Your task to perform on an android device: turn on priority inbox in the gmail app Image 0: 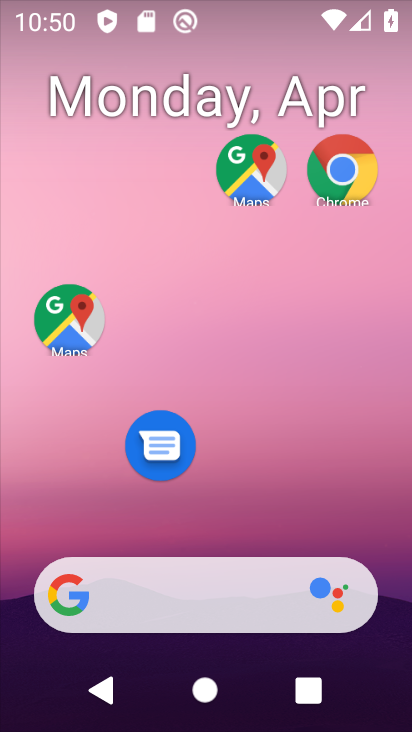
Step 0: drag from (311, 504) to (289, 38)
Your task to perform on an android device: turn on priority inbox in the gmail app Image 1: 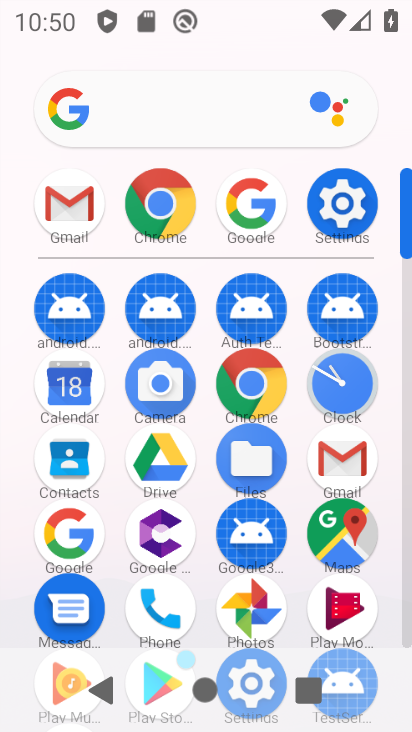
Step 1: click (361, 471)
Your task to perform on an android device: turn on priority inbox in the gmail app Image 2: 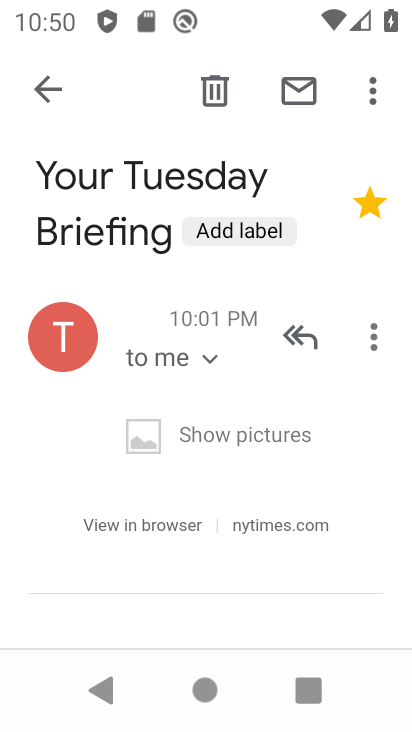
Step 2: click (39, 76)
Your task to perform on an android device: turn on priority inbox in the gmail app Image 3: 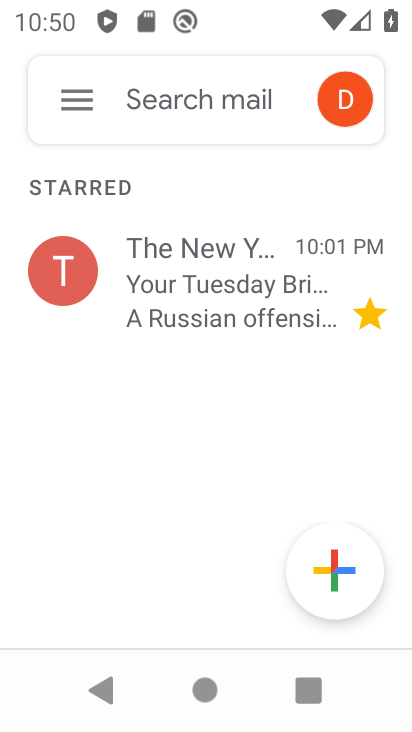
Step 3: click (77, 106)
Your task to perform on an android device: turn on priority inbox in the gmail app Image 4: 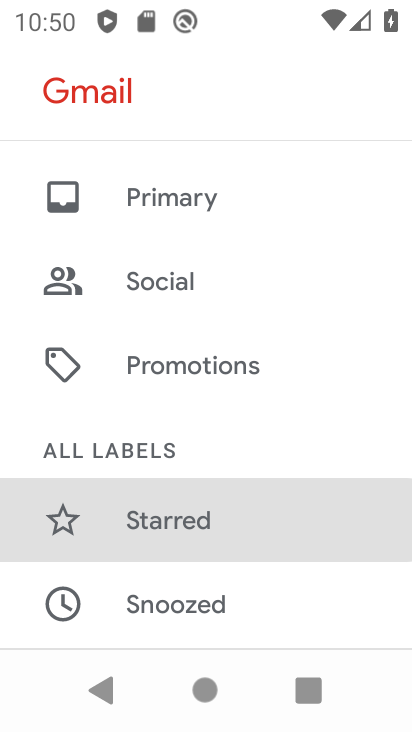
Step 4: drag from (150, 560) to (116, 2)
Your task to perform on an android device: turn on priority inbox in the gmail app Image 5: 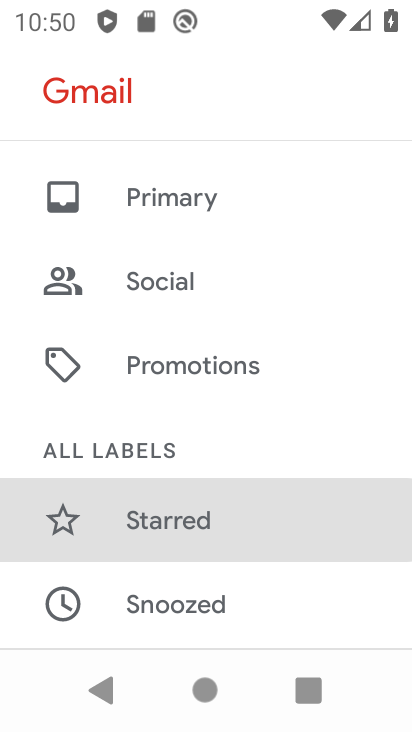
Step 5: drag from (234, 546) to (281, 52)
Your task to perform on an android device: turn on priority inbox in the gmail app Image 6: 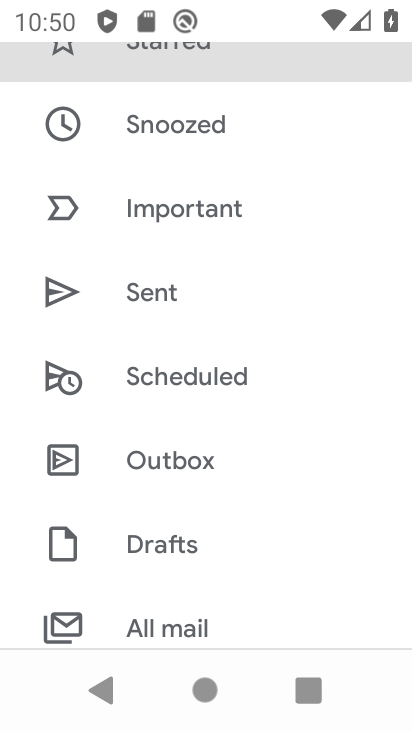
Step 6: drag from (223, 547) to (205, 33)
Your task to perform on an android device: turn on priority inbox in the gmail app Image 7: 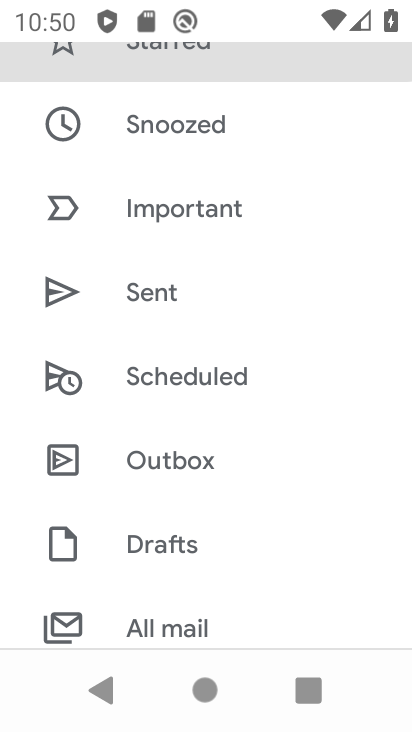
Step 7: drag from (275, 448) to (301, 10)
Your task to perform on an android device: turn on priority inbox in the gmail app Image 8: 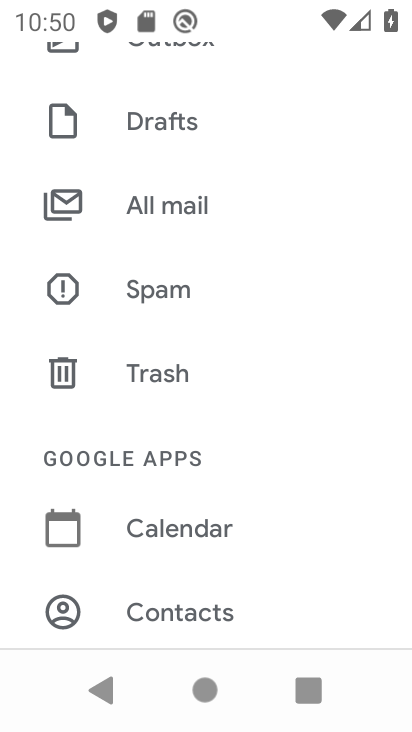
Step 8: drag from (245, 551) to (239, 40)
Your task to perform on an android device: turn on priority inbox in the gmail app Image 9: 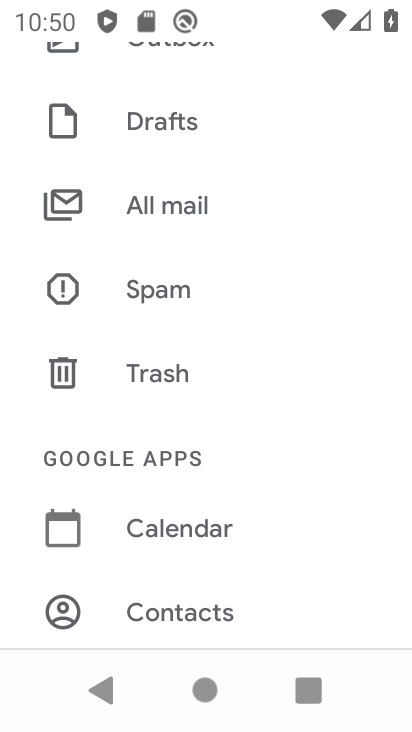
Step 9: drag from (272, 497) to (292, 35)
Your task to perform on an android device: turn on priority inbox in the gmail app Image 10: 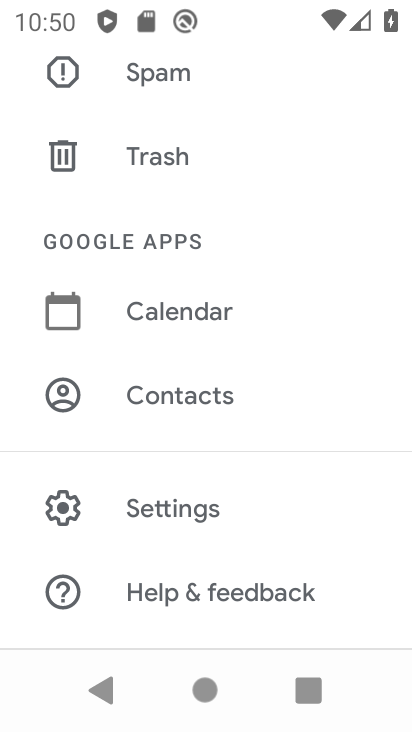
Step 10: click (229, 498)
Your task to perform on an android device: turn on priority inbox in the gmail app Image 11: 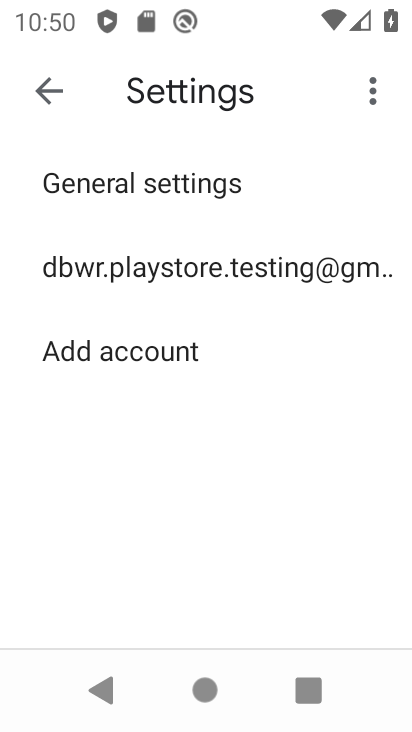
Step 11: click (267, 264)
Your task to perform on an android device: turn on priority inbox in the gmail app Image 12: 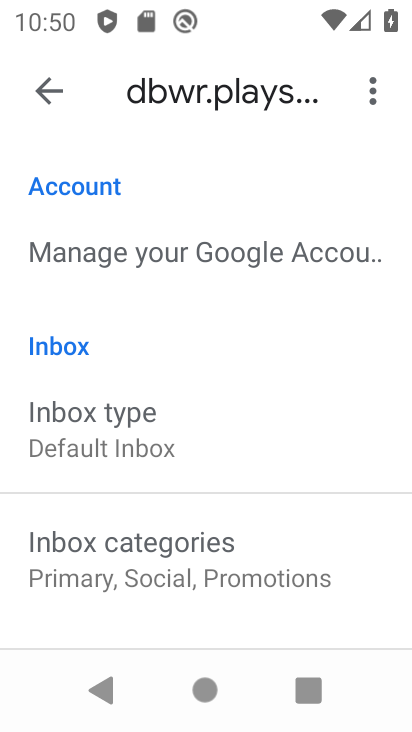
Step 12: click (139, 427)
Your task to perform on an android device: turn on priority inbox in the gmail app Image 13: 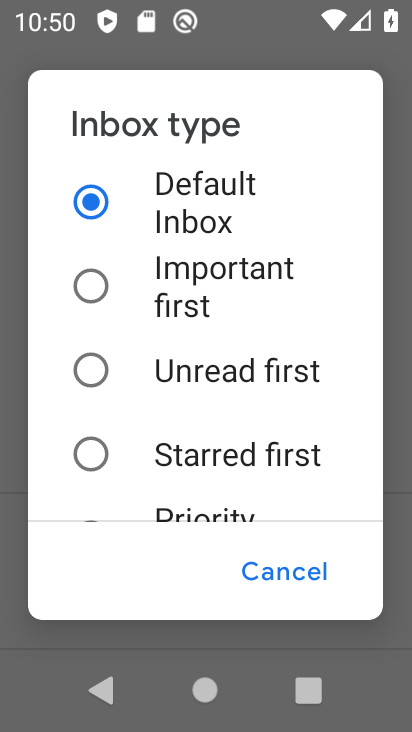
Step 13: drag from (114, 474) to (118, 176)
Your task to perform on an android device: turn on priority inbox in the gmail app Image 14: 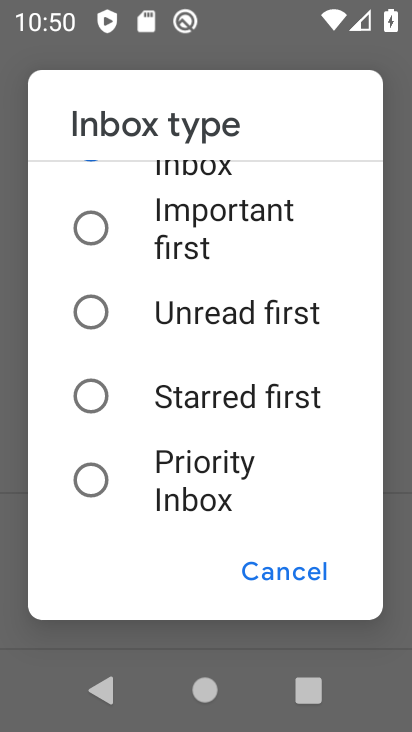
Step 14: click (93, 465)
Your task to perform on an android device: turn on priority inbox in the gmail app Image 15: 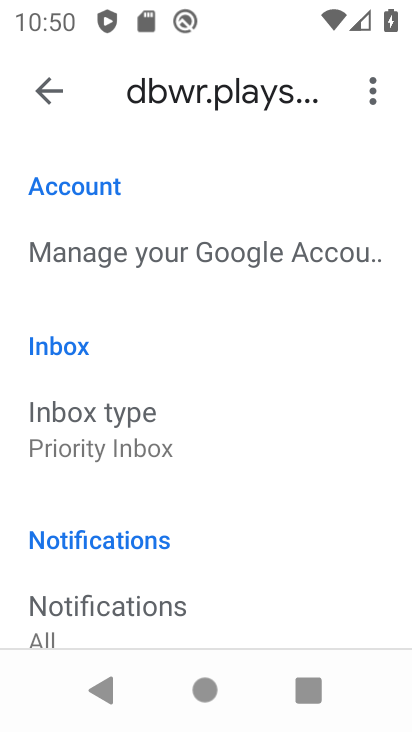
Step 15: task complete